Your task to perform on an android device: When is my next appointment? Image 0: 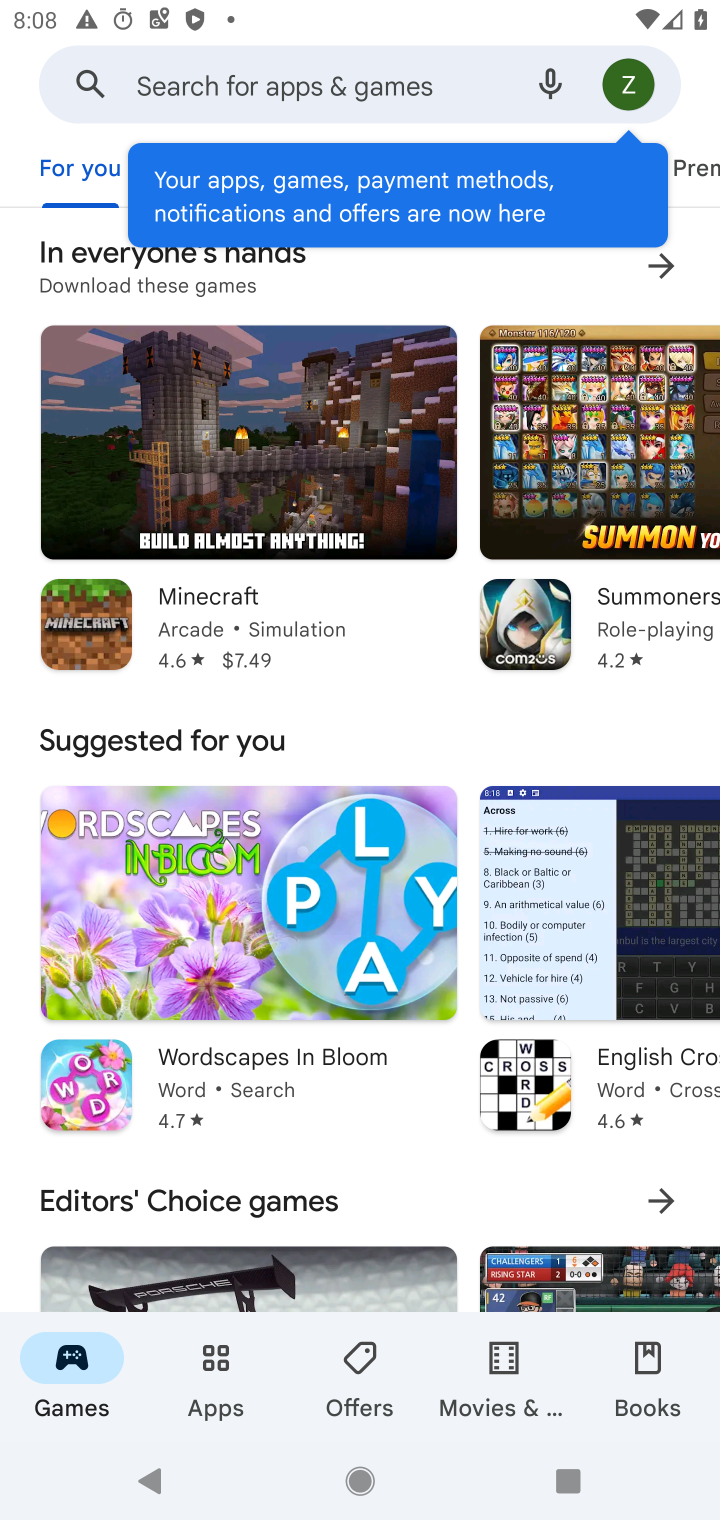
Step 0: press home button
Your task to perform on an android device: When is my next appointment? Image 1: 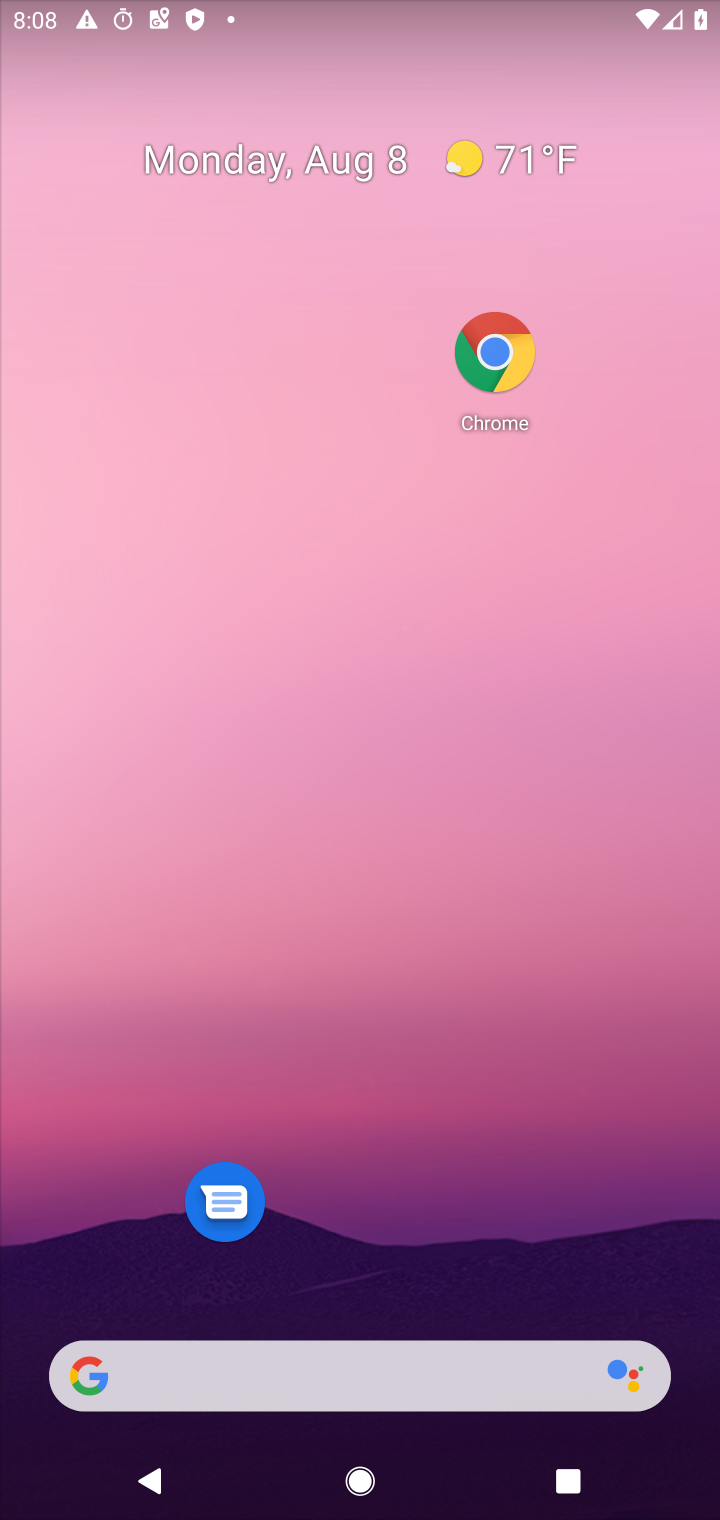
Step 1: drag from (352, 1188) to (592, 32)
Your task to perform on an android device: When is my next appointment? Image 2: 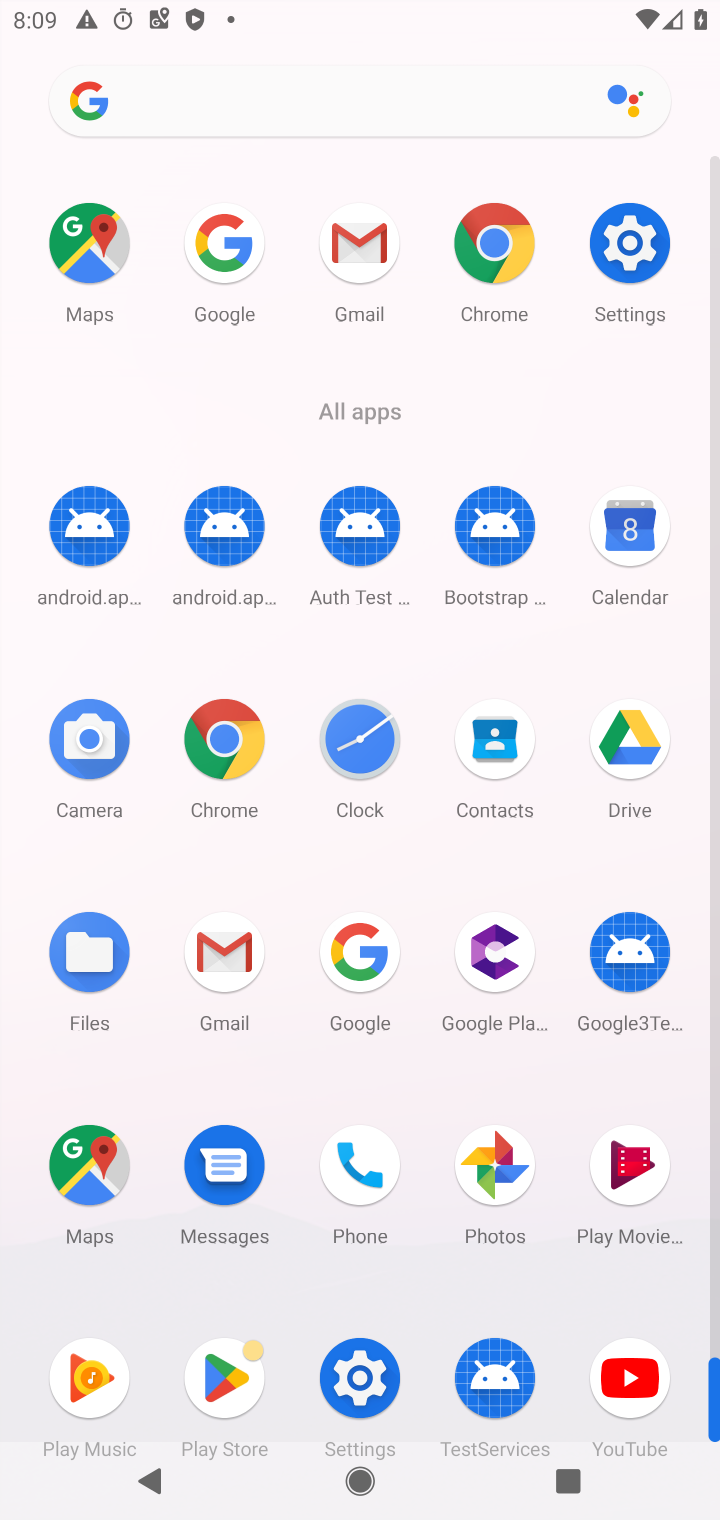
Step 2: click (647, 558)
Your task to perform on an android device: When is my next appointment? Image 3: 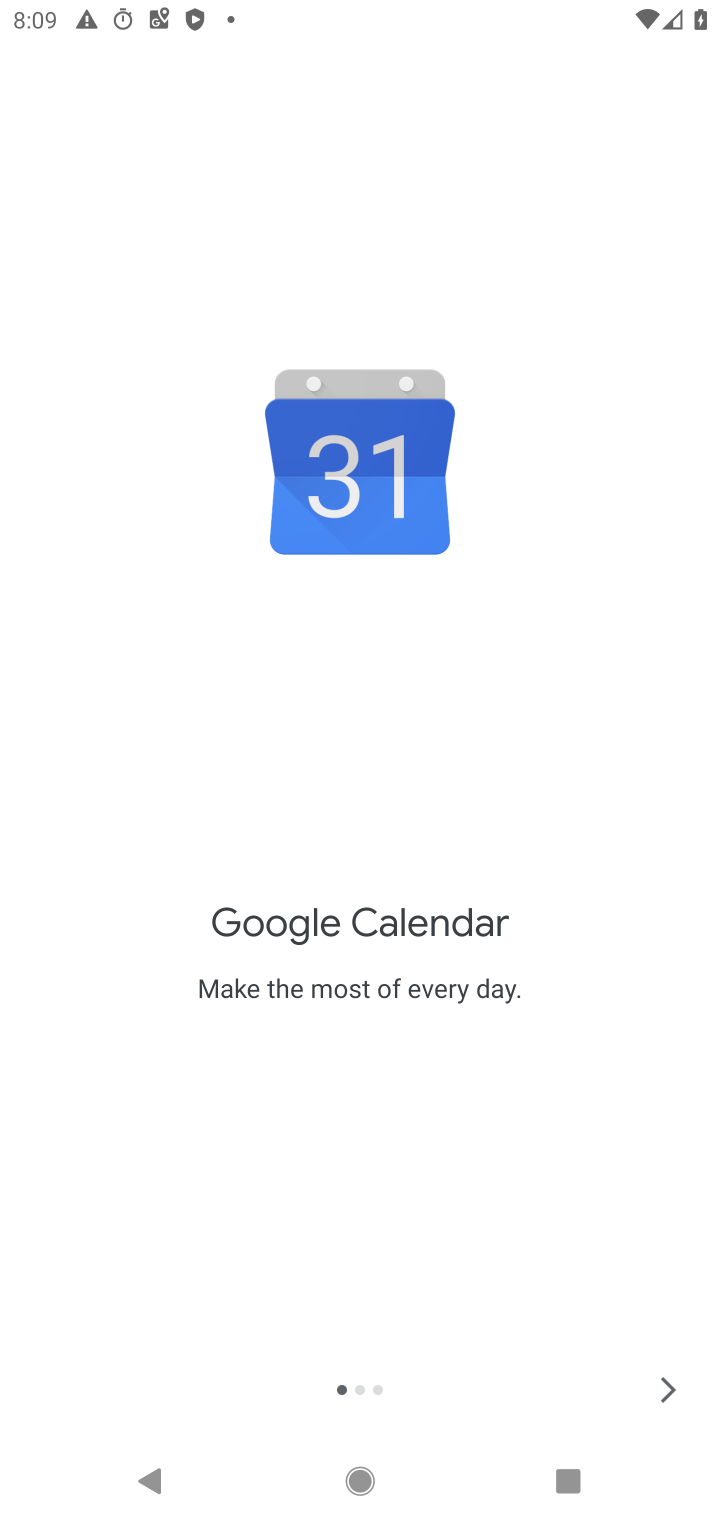
Step 3: click (665, 1387)
Your task to perform on an android device: When is my next appointment? Image 4: 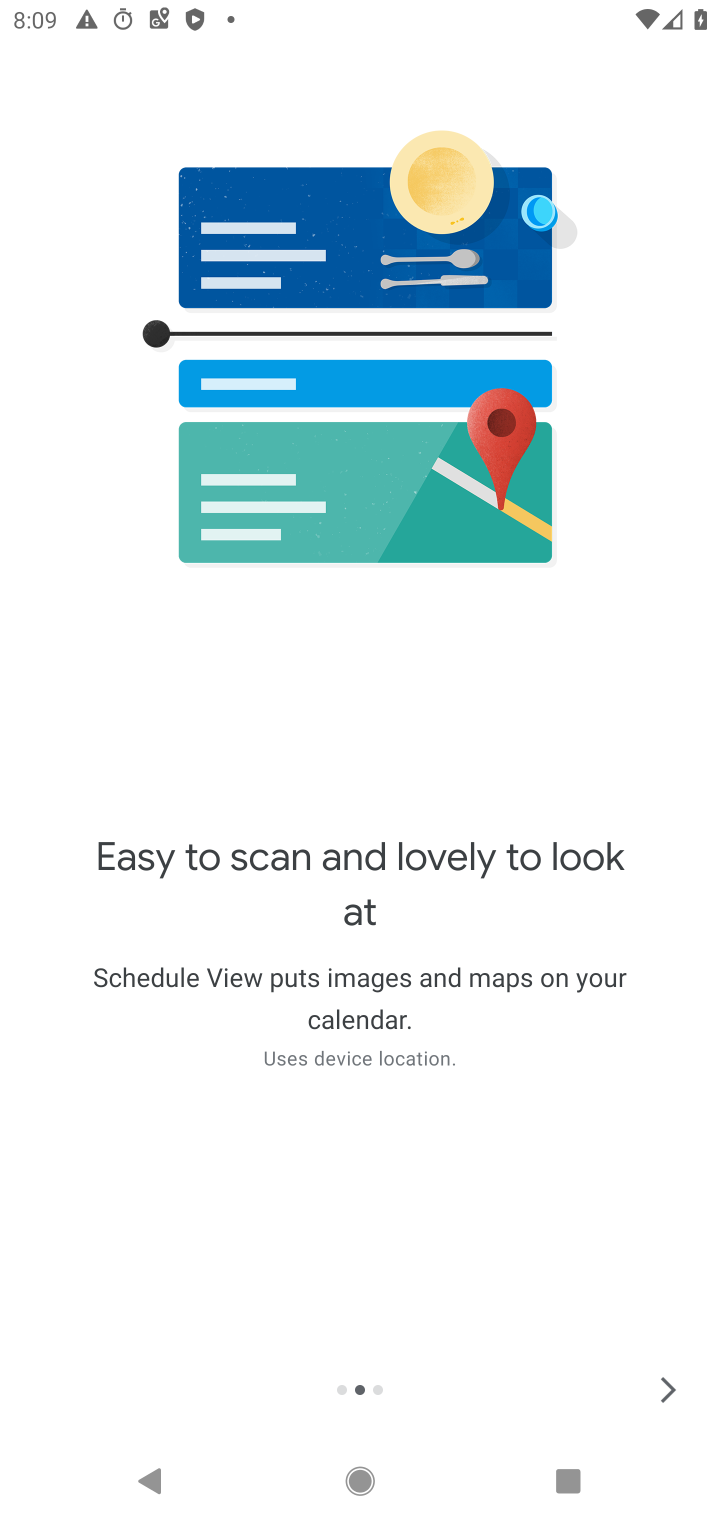
Step 4: click (661, 1387)
Your task to perform on an android device: When is my next appointment? Image 5: 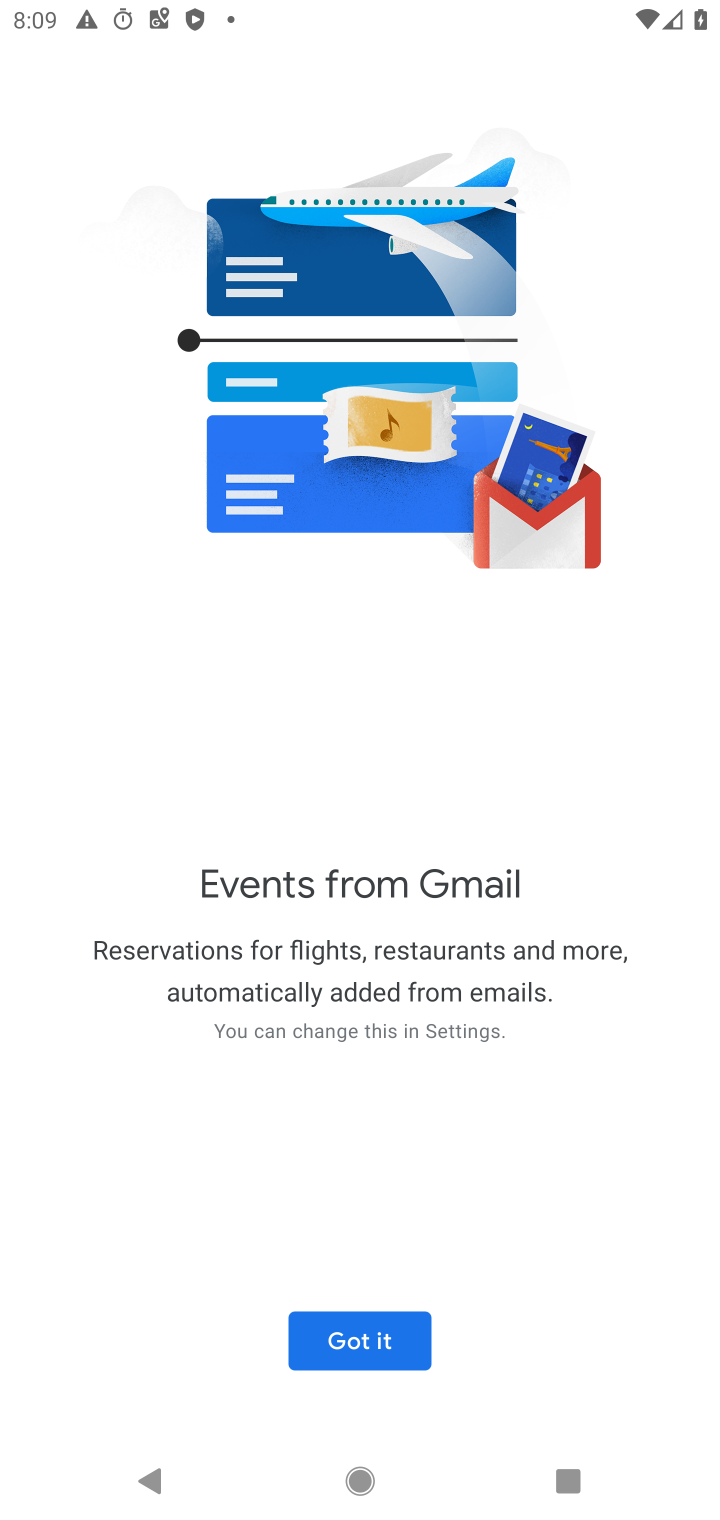
Step 5: click (371, 1336)
Your task to perform on an android device: When is my next appointment? Image 6: 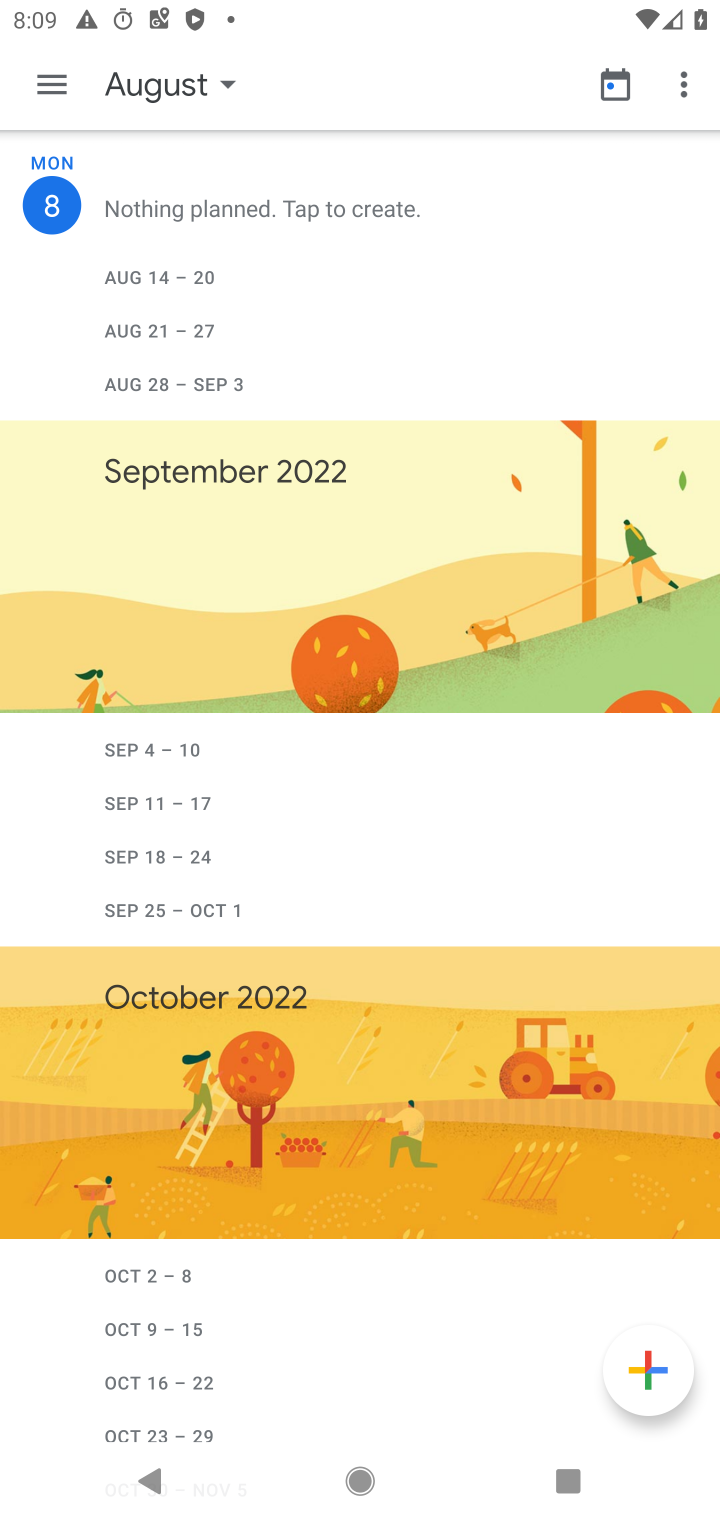
Step 6: click (183, 91)
Your task to perform on an android device: When is my next appointment? Image 7: 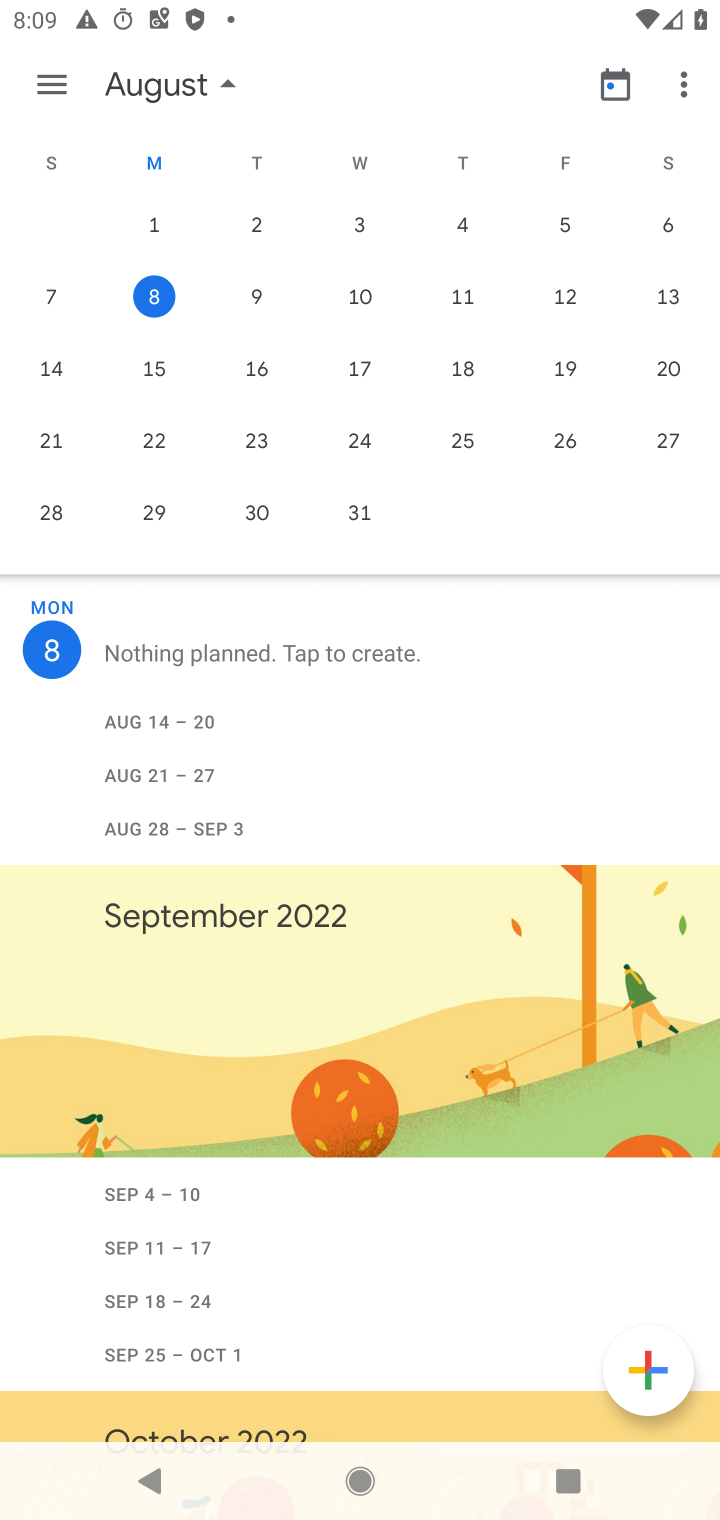
Step 7: click (56, 82)
Your task to perform on an android device: When is my next appointment? Image 8: 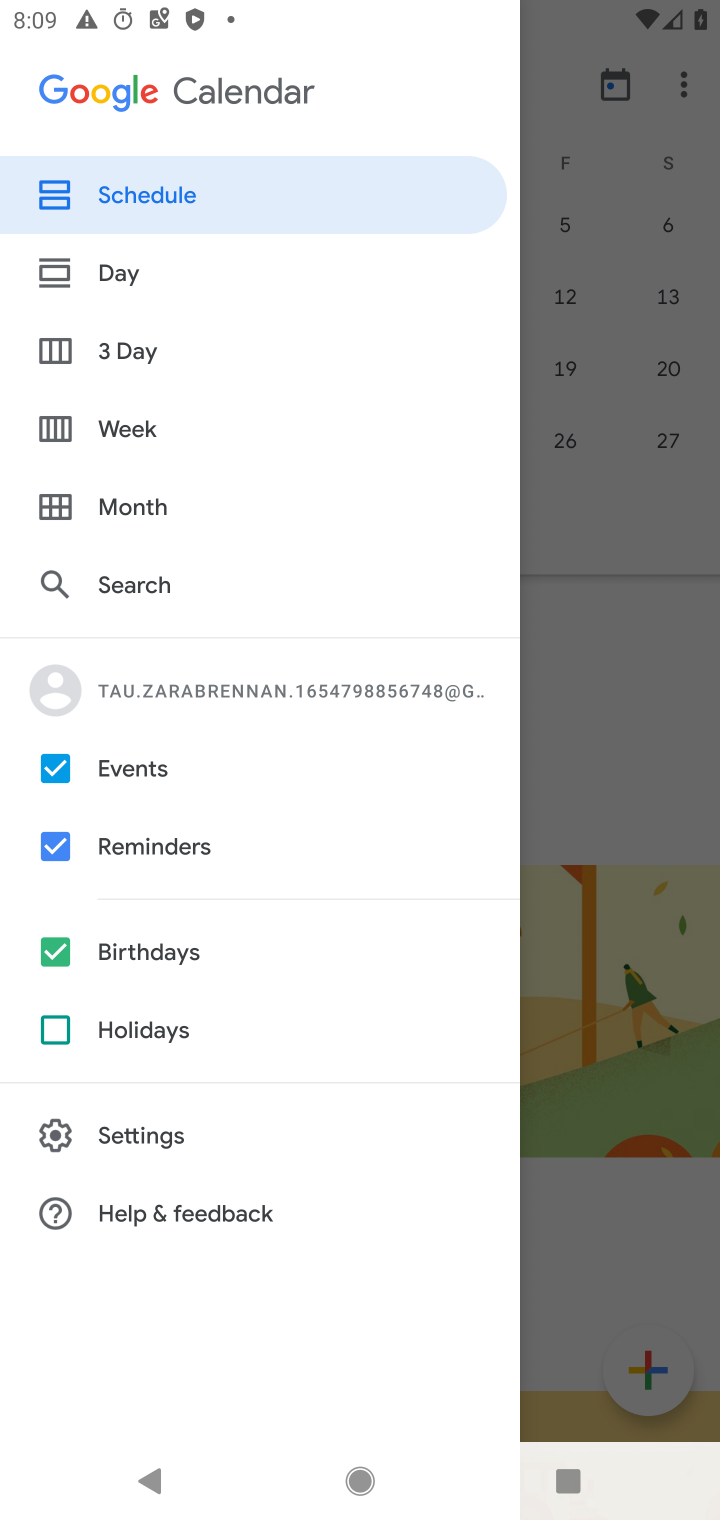
Step 8: click (116, 953)
Your task to perform on an android device: When is my next appointment? Image 9: 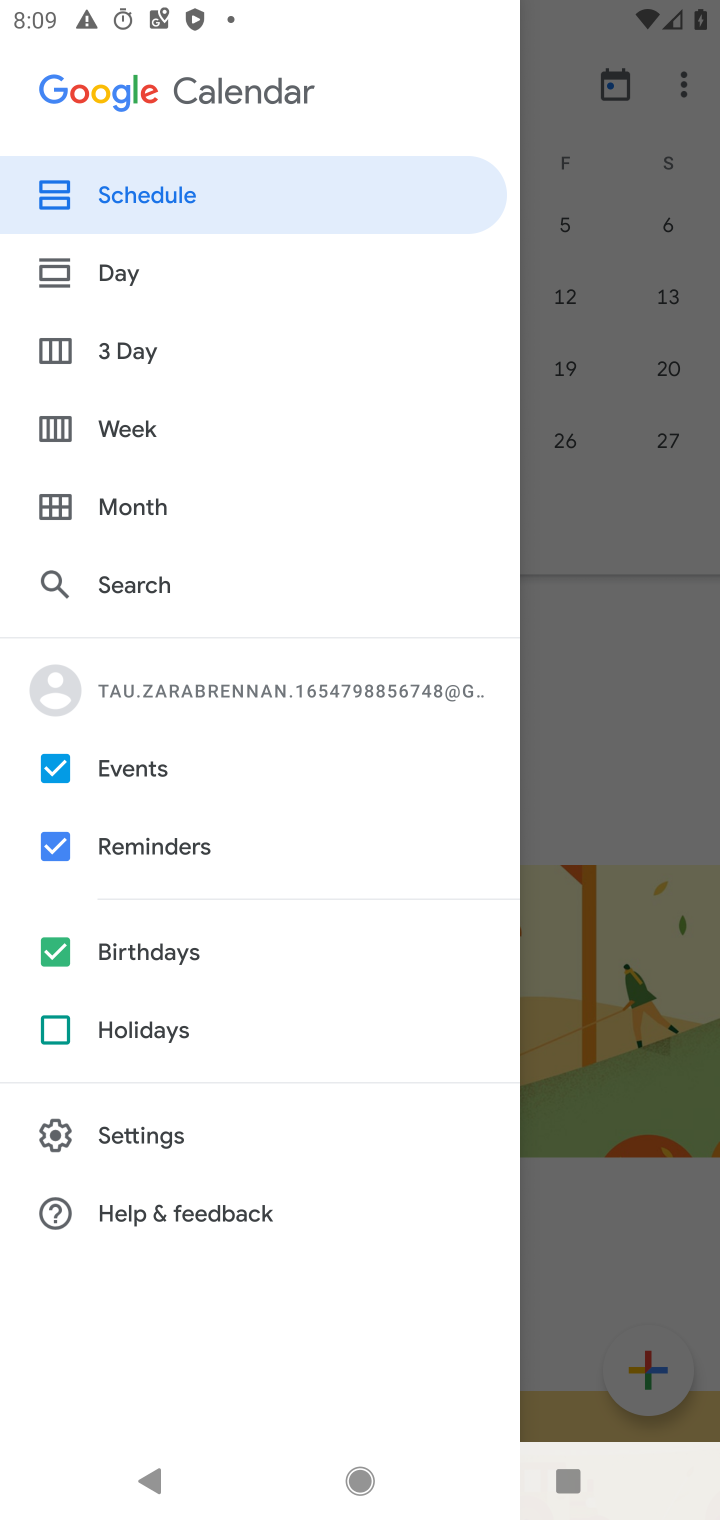
Step 9: click (64, 949)
Your task to perform on an android device: When is my next appointment? Image 10: 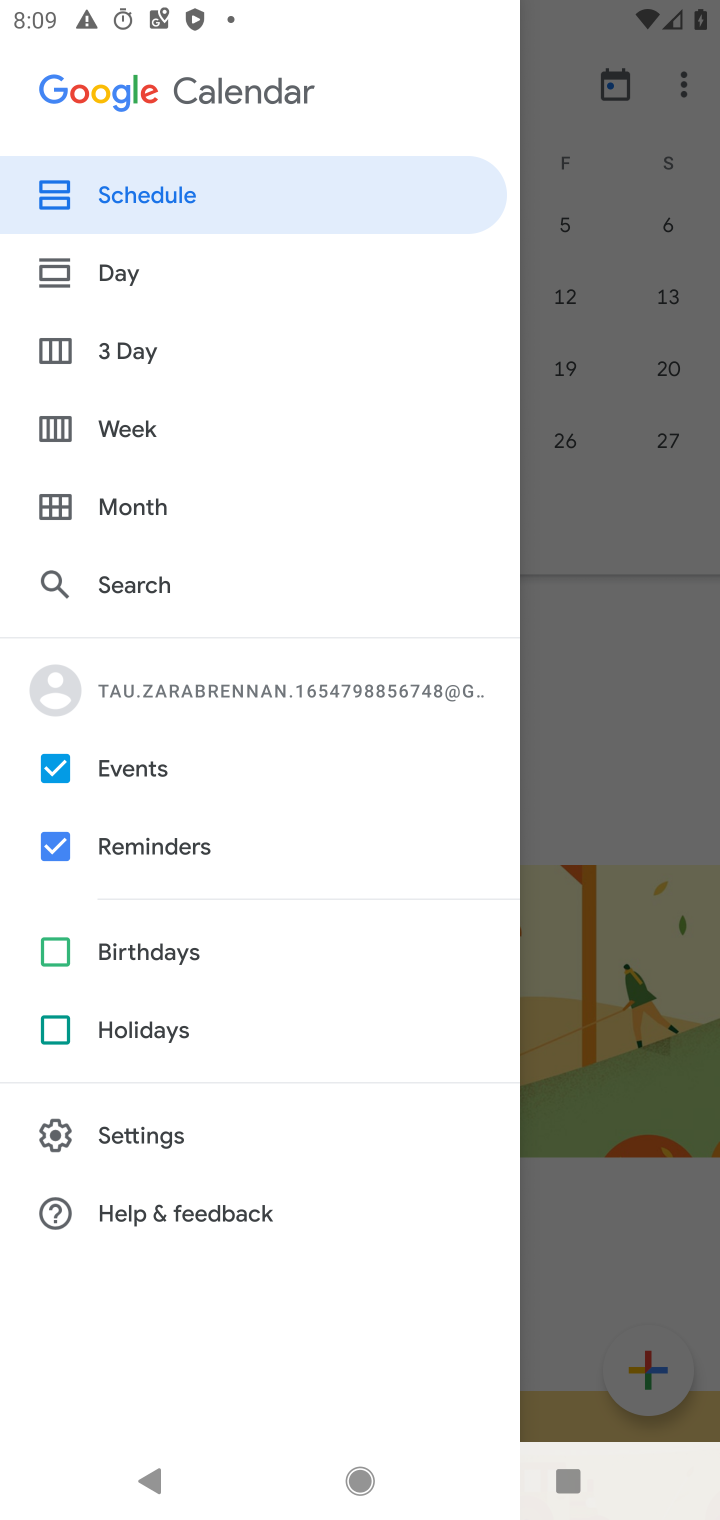
Step 10: click (618, 673)
Your task to perform on an android device: When is my next appointment? Image 11: 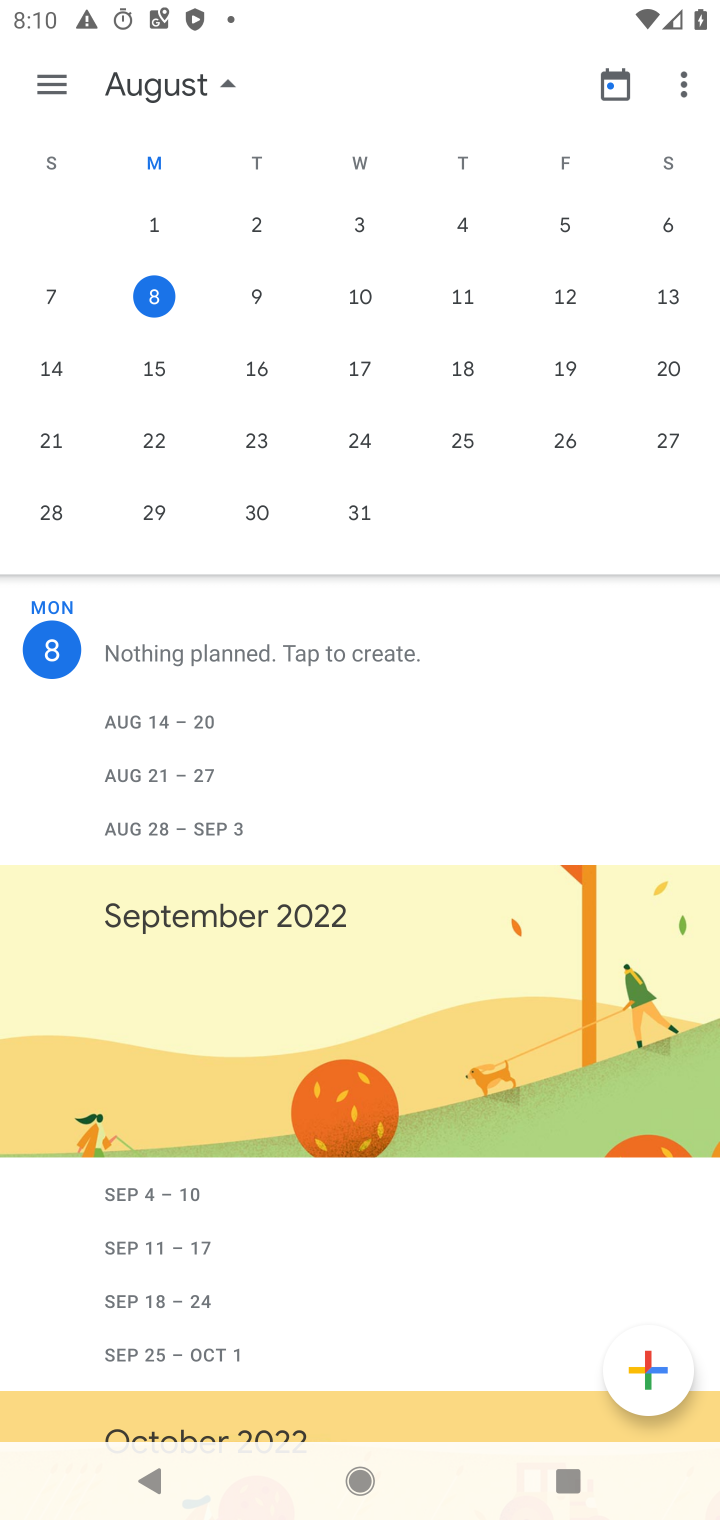
Step 11: task complete